Your task to perform on an android device: delete location history Image 0: 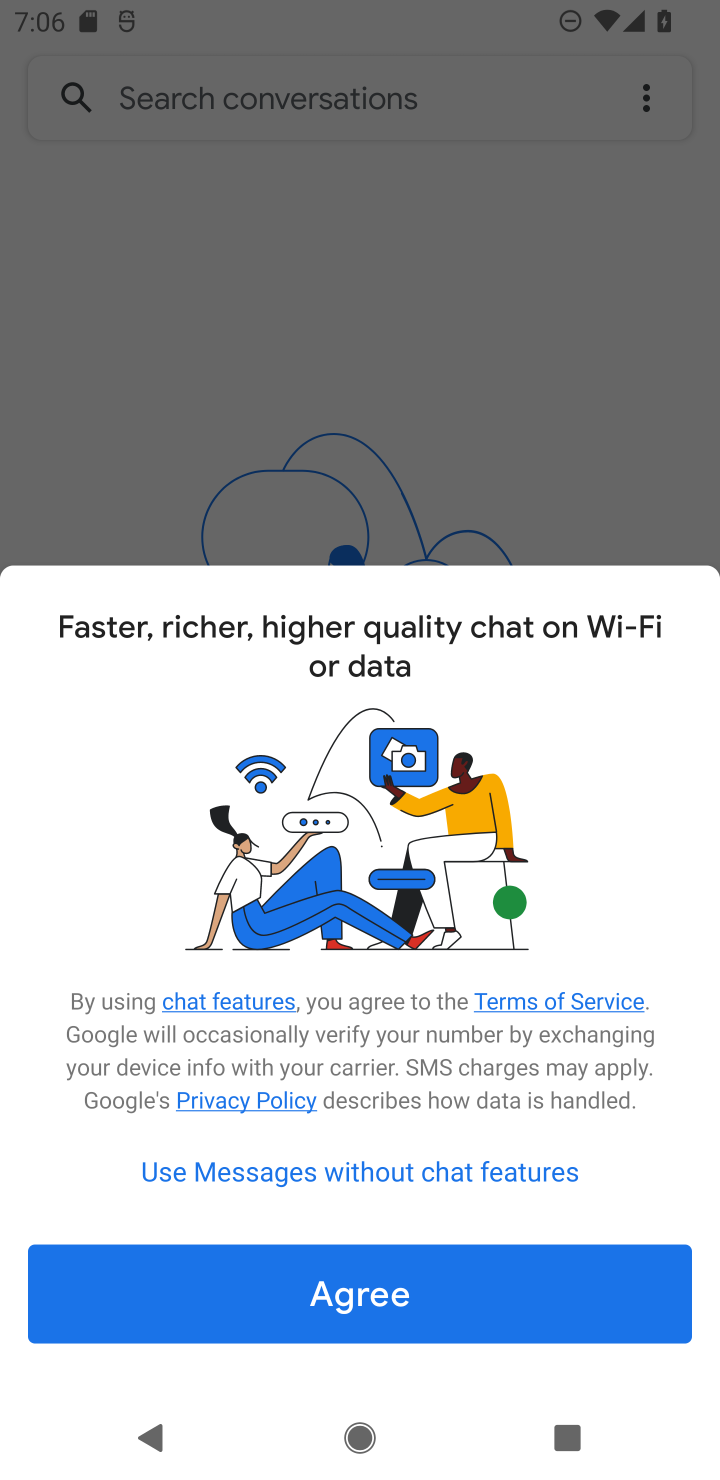
Step 0: press home button
Your task to perform on an android device: delete location history Image 1: 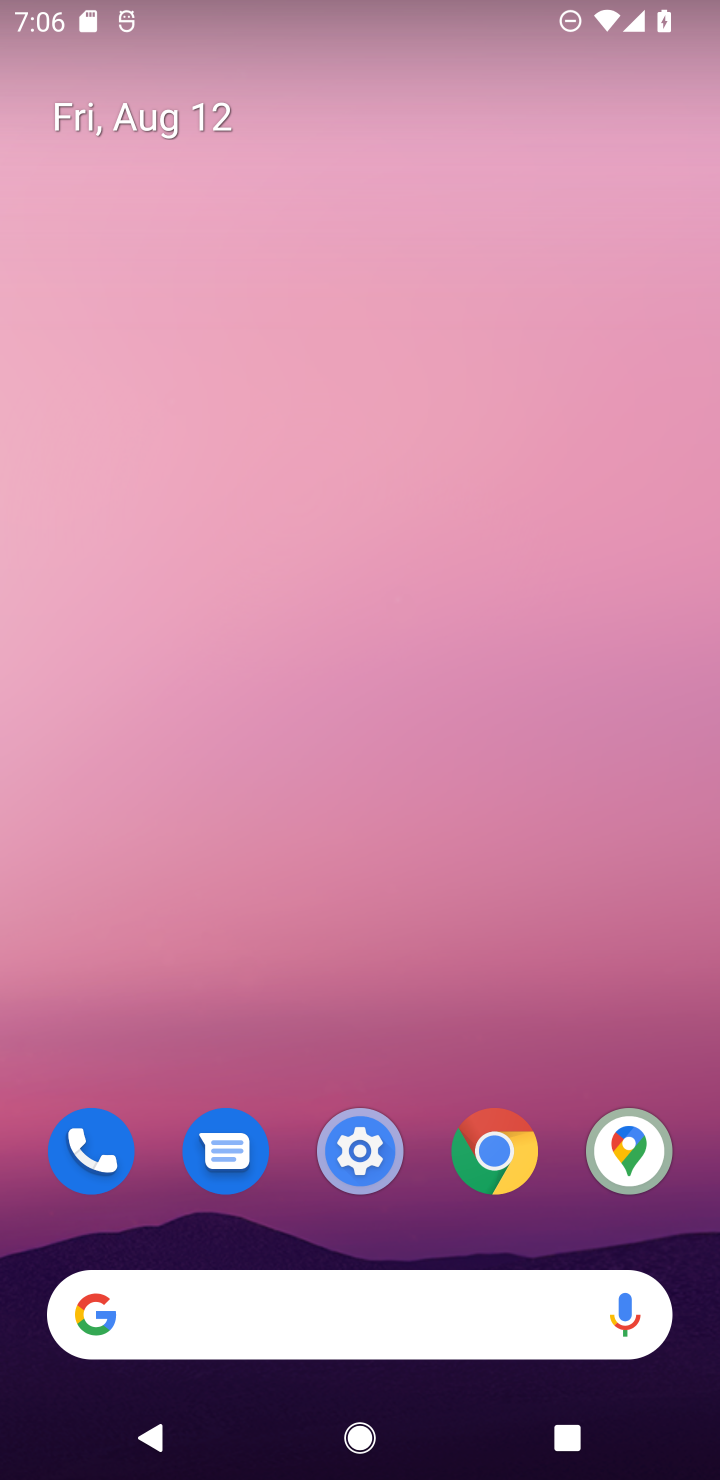
Step 1: drag from (526, 198) to (428, 44)
Your task to perform on an android device: delete location history Image 2: 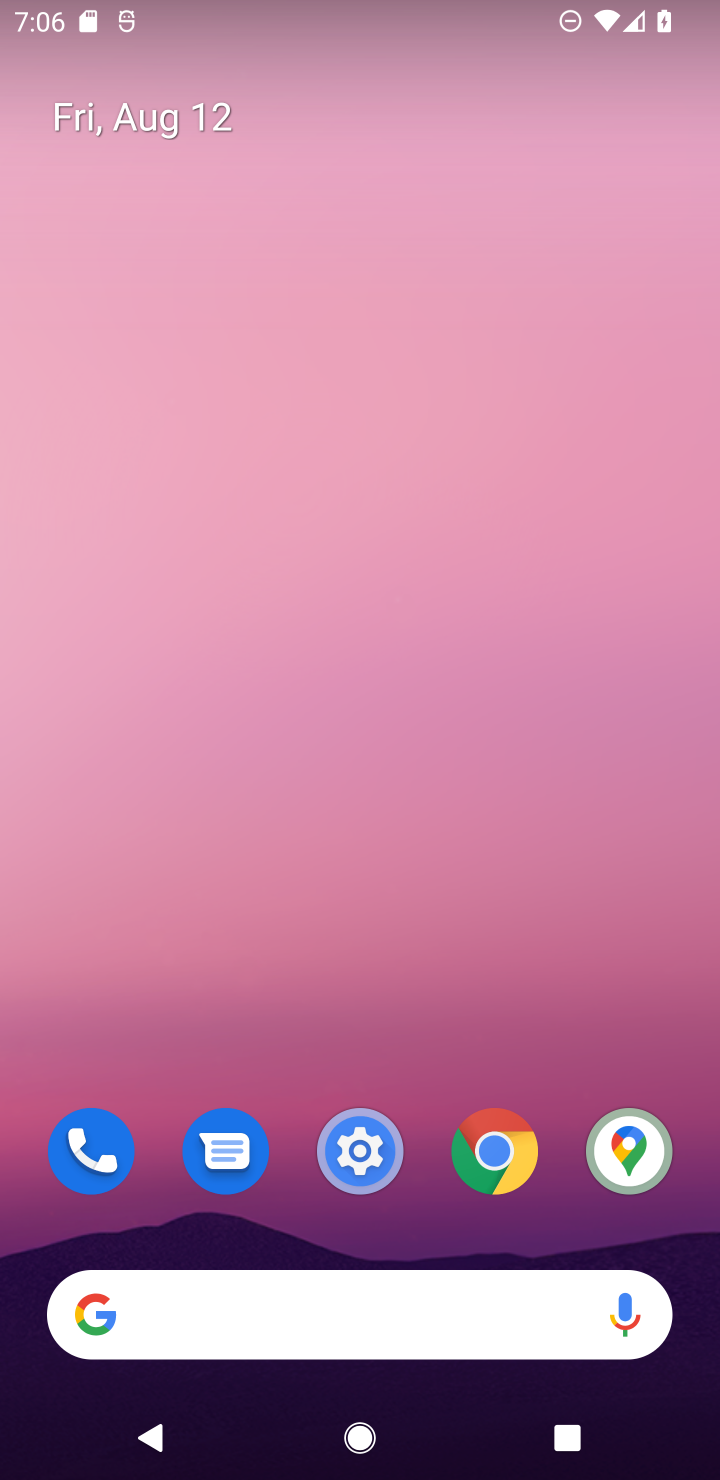
Step 2: drag from (380, 929) to (411, 33)
Your task to perform on an android device: delete location history Image 3: 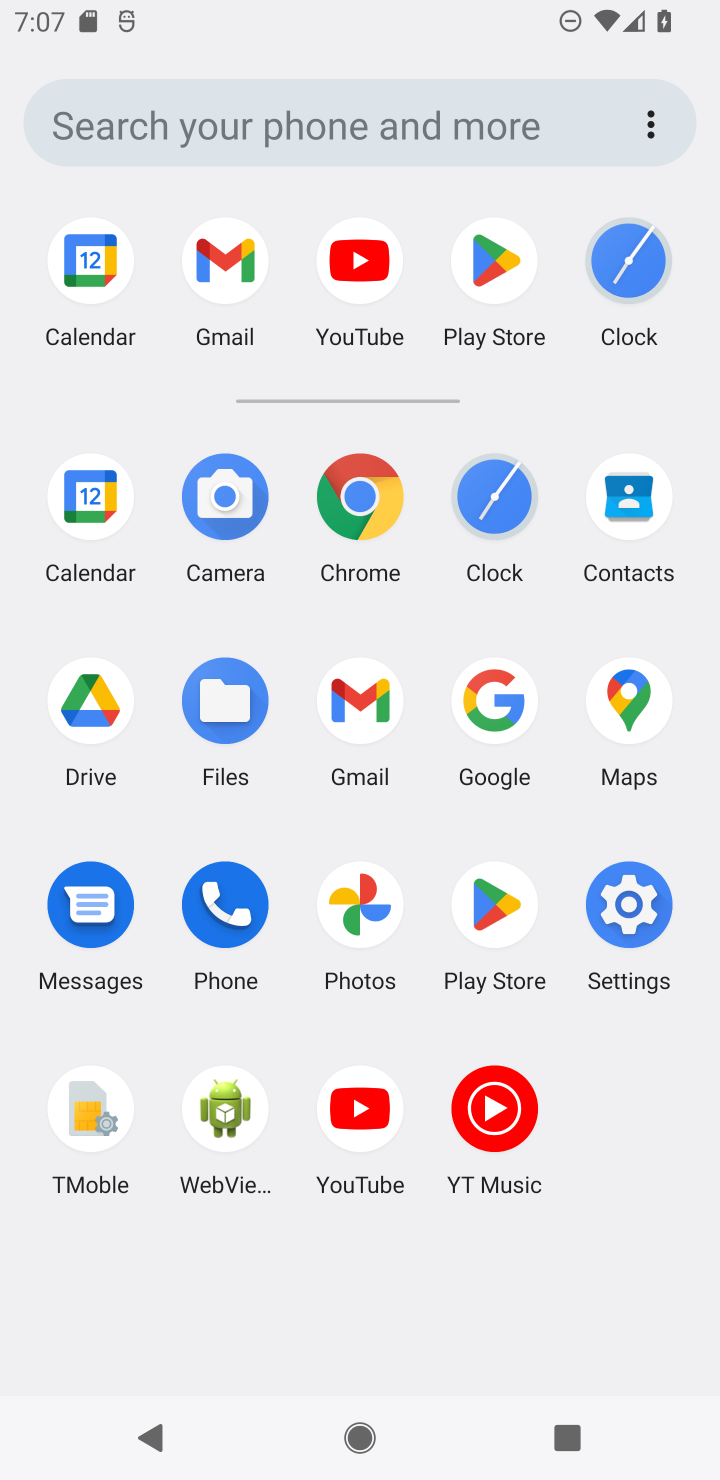
Step 3: click (646, 725)
Your task to perform on an android device: delete location history Image 4: 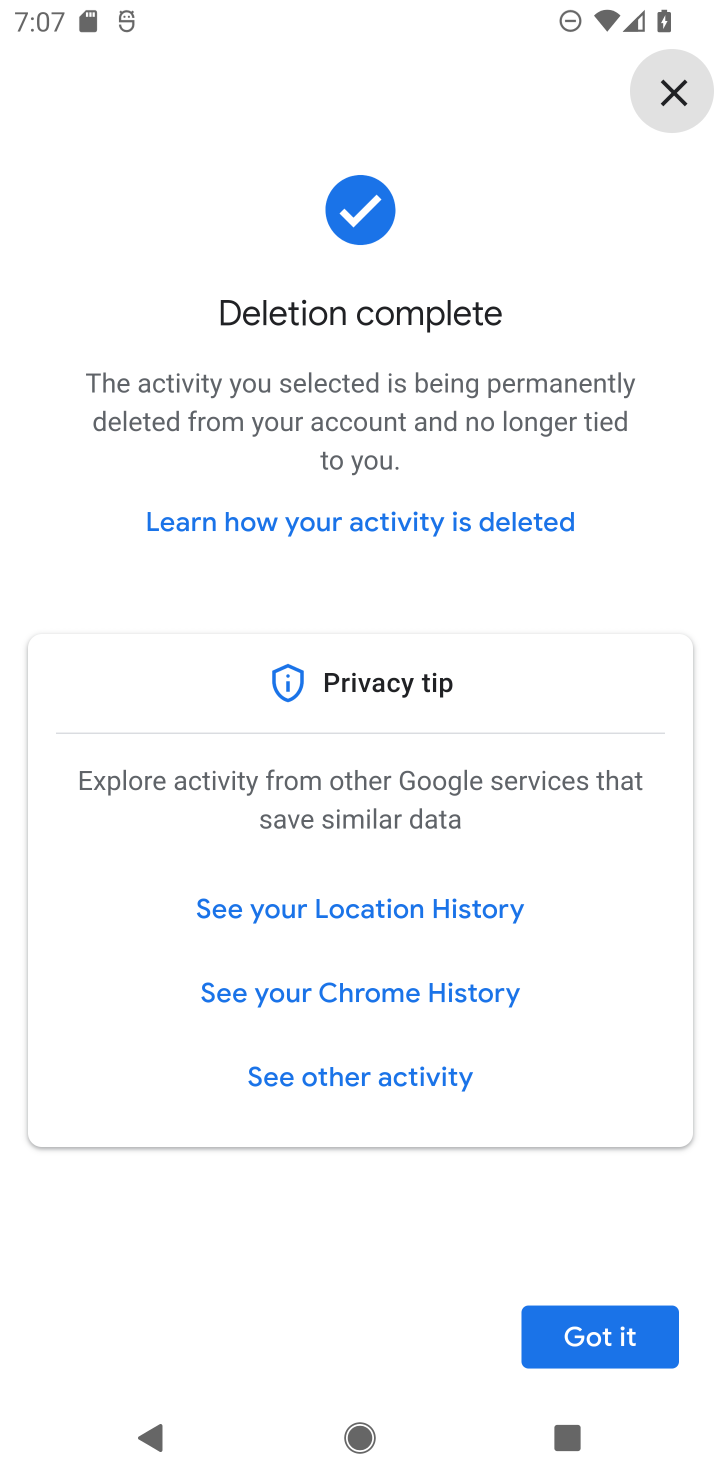
Step 4: click (625, 1341)
Your task to perform on an android device: delete location history Image 5: 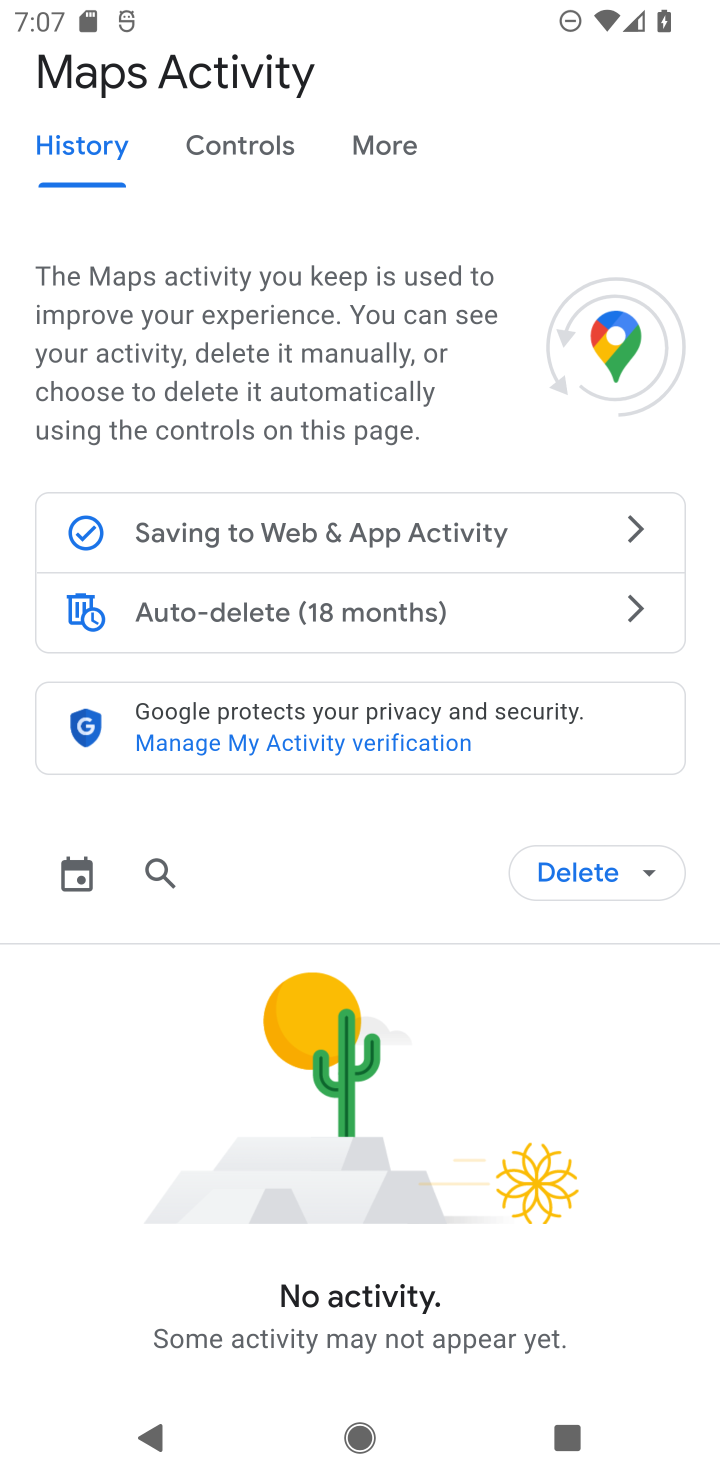
Step 5: task complete